Your task to perform on an android device: set the stopwatch Image 0: 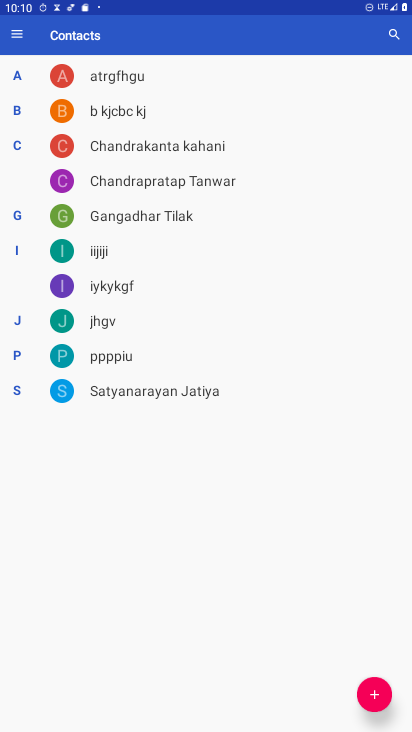
Step 0: press home button
Your task to perform on an android device: set the stopwatch Image 1: 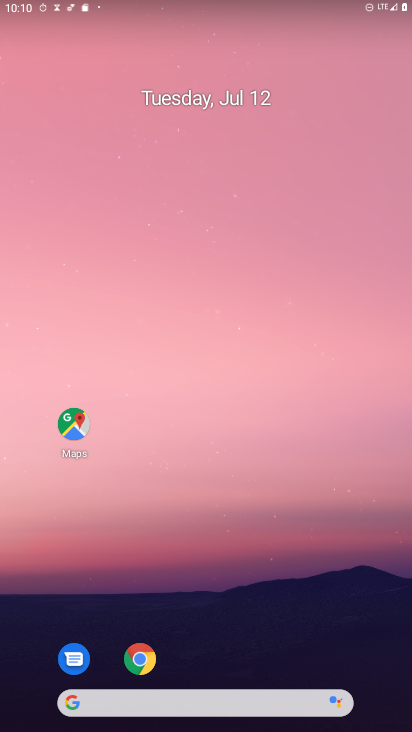
Step 1: drag from (171, 695) to (185, 252)
Your task to perform on an android device: set the stopwatch Image 2: 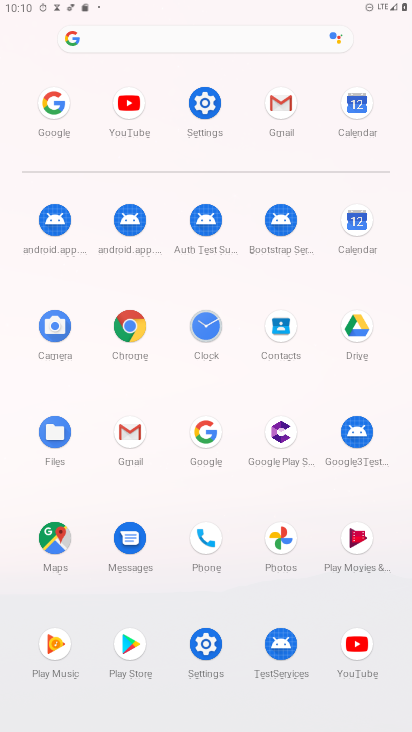
Step 2: click (206, 327)
Your task to perform on an android device: set the stopwatch Image 3: 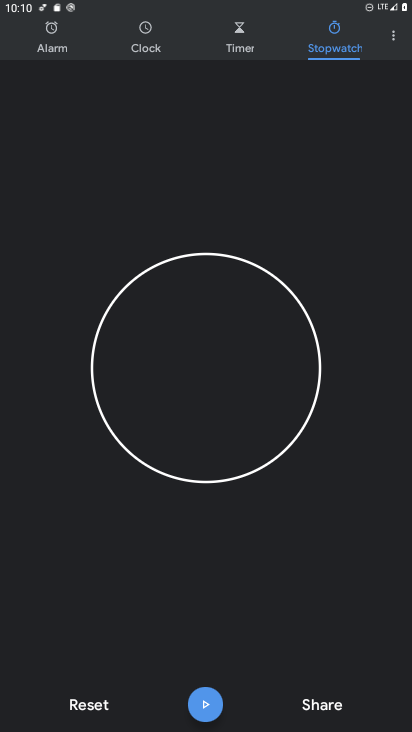
Step 3: click (102, 701)
Your task to perform on an android device: set the stopwatch Image 4: 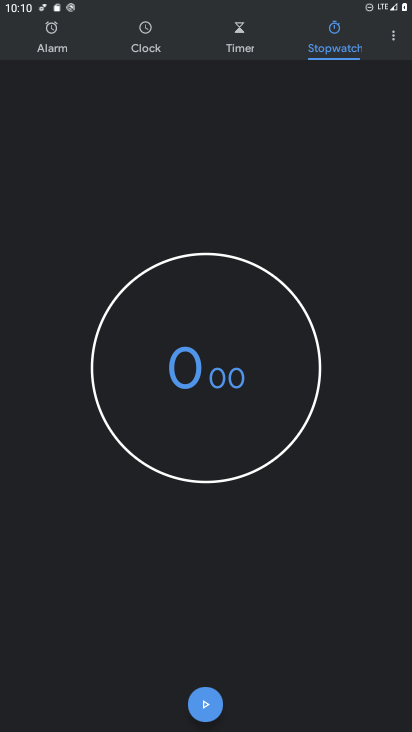
Step 4: click (207, 703)
Your task to perform on an android device: set the stopwatch Image 5: 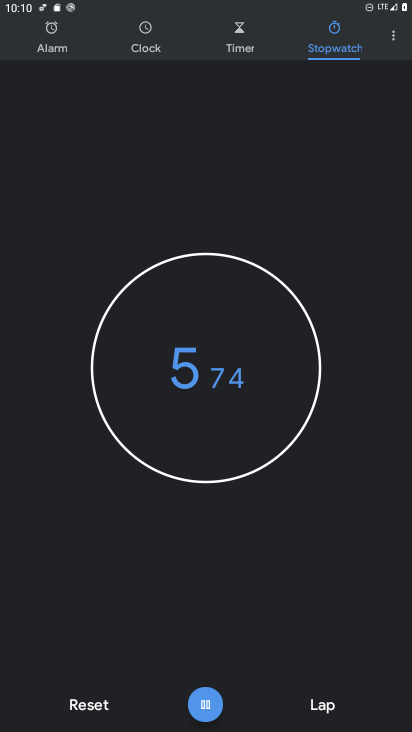
Step 5: click (207, 703)
Your task to perform on an android device: set the stopwatch Image 6: 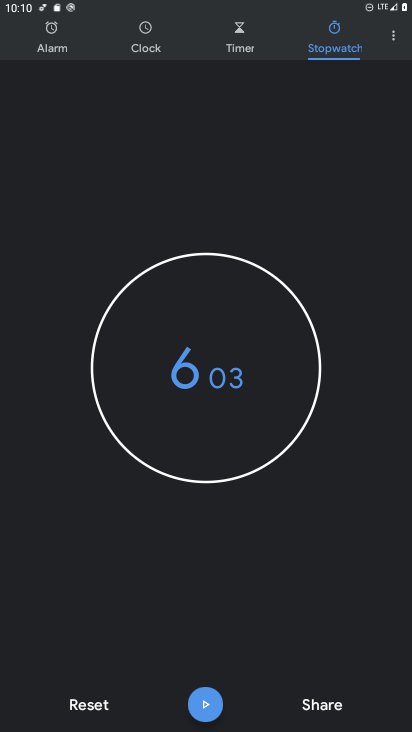
Step 6: task complete